Your task to perform on an android device: toggle priority inbox in the gmail app Image 0: 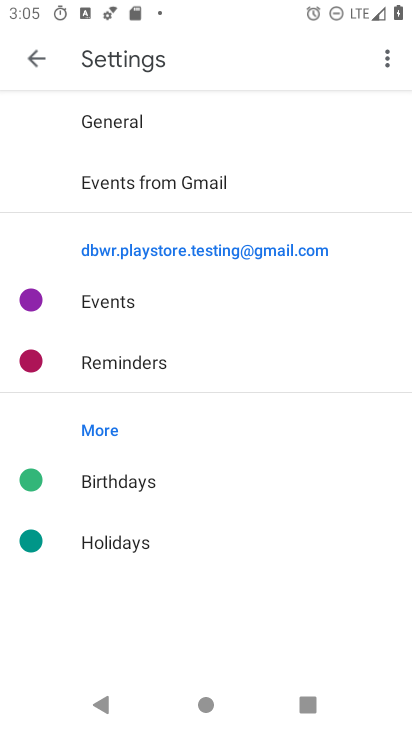
Step 0: press home button
Your task to perform on an android device: toggle priority inbox in the gmail app Image 1: 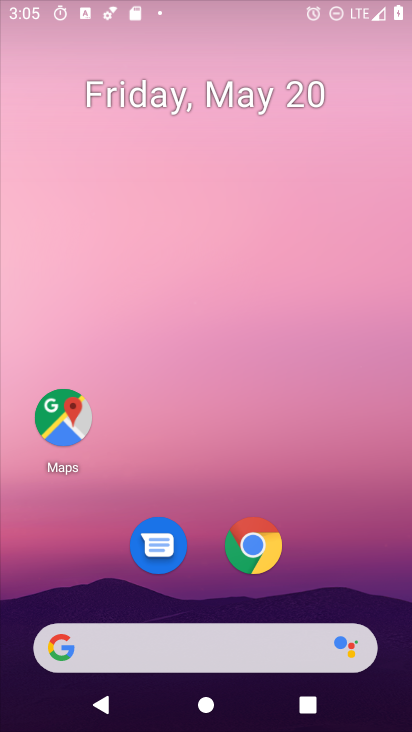
Step 1: drag from (220, 648) to (192, 0)
Your task to perform on an android device: toggle priority inbox in the gmail app Image 2: 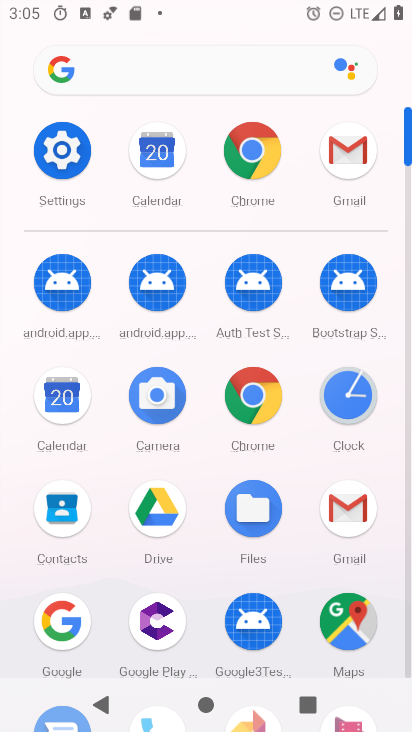
Step 2: click (346, 499)
Your task to perform on an android device: toggle priority inbox in the gmail app Image 3: 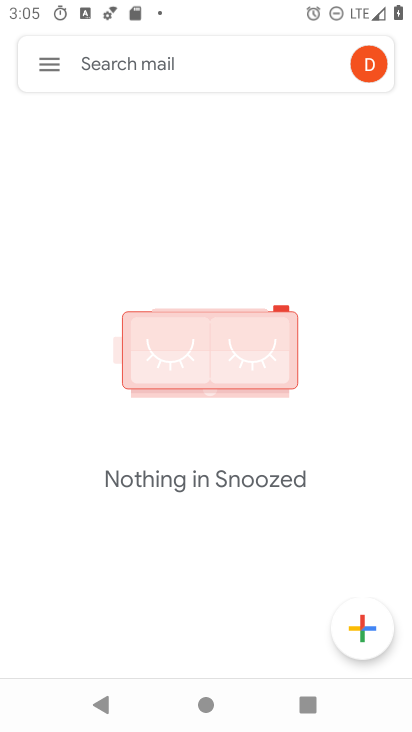
Step 3: click (42, 49)
Your task to perform on an android device: toggle priority inbox in the gmail app Image 4: 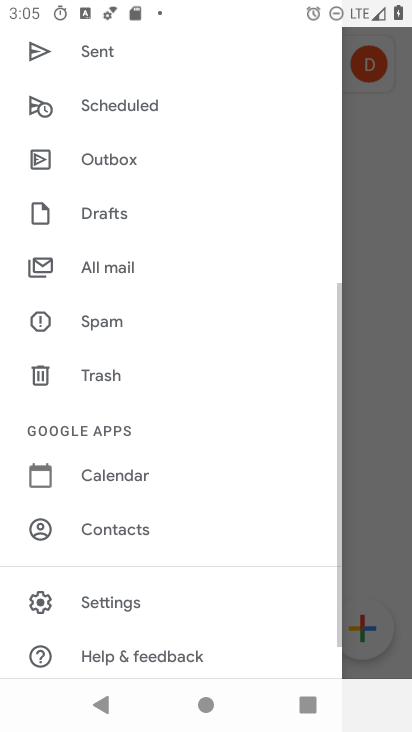
Step 4: click (151, 604)
Your task to perform on an android device: toggle priority inbox in the gmail app Image 5: 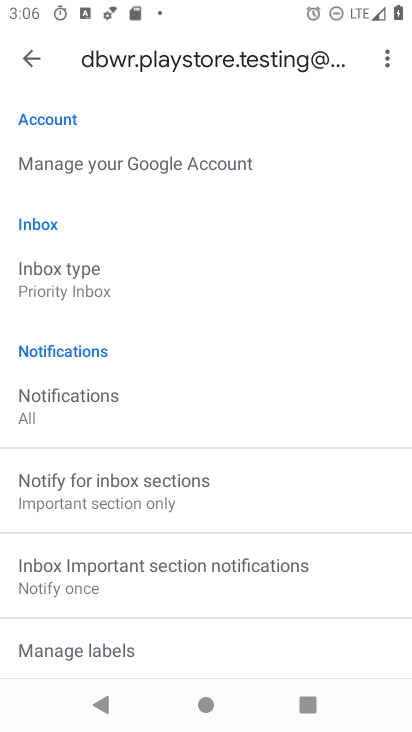
Step 5: click (120, 283)
Your task to perform on an android device: toggle priority inbox in the gmail app Image 6: 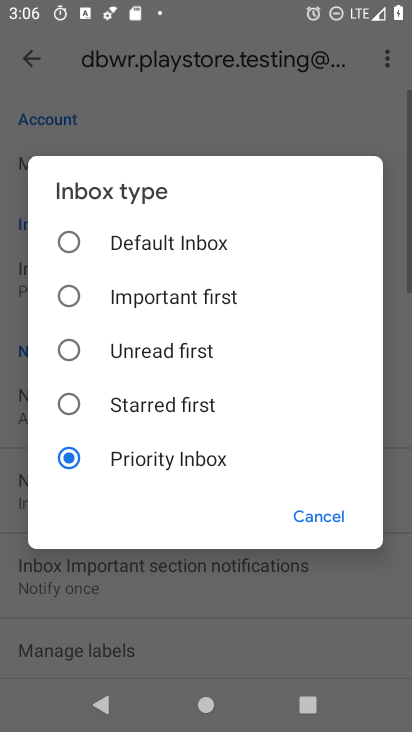
Step 6: click (102, 243)
Your task to perform on an android device: toggle priority inbox in the gmail app Image 7: 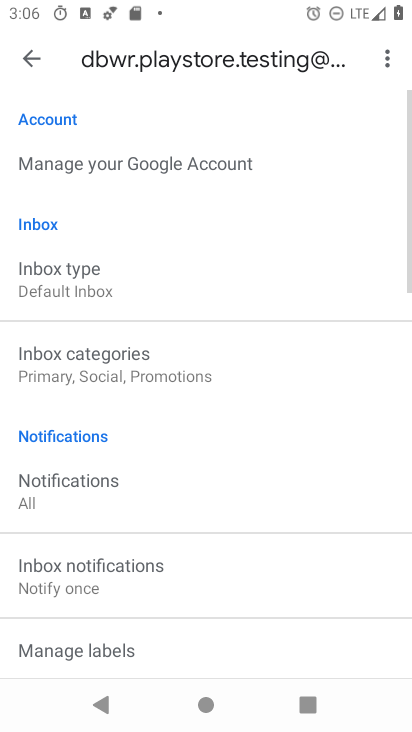
Step 7: task complete